Your task to perform on an android device: Clear the shopping cart on bestbuy. Search for logitech g pro on bestbuy, select the first entry, add it to the cart, then select checkout. Image 0: 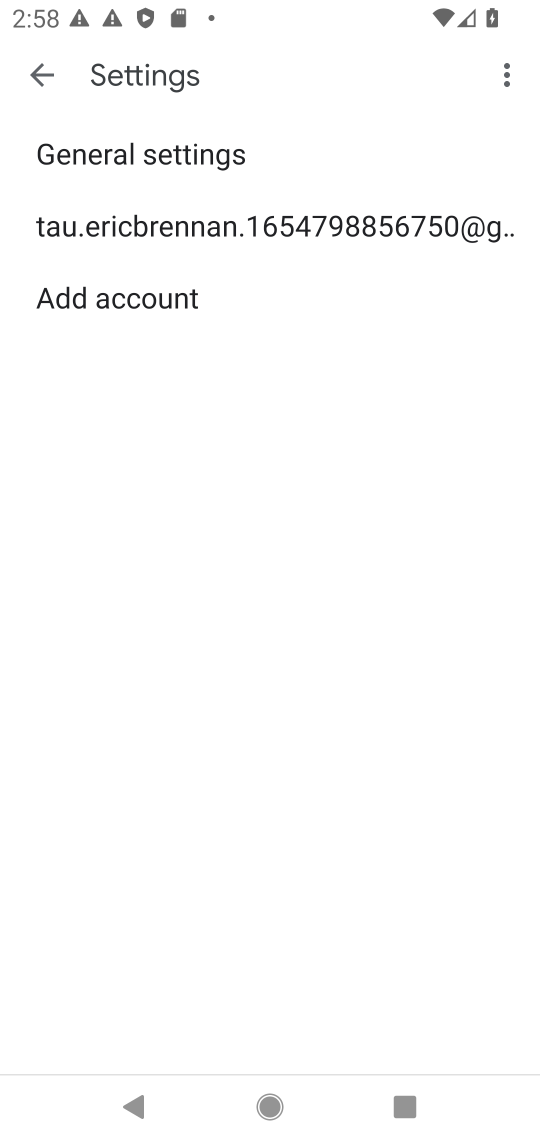
Step 0: press home button
Your task to perform on an android device: Clear the shopping cart on bestbuy. Search for logitech g pro on bestbuy, select the first entry, add it to the cart, then select checkout. Image 1: 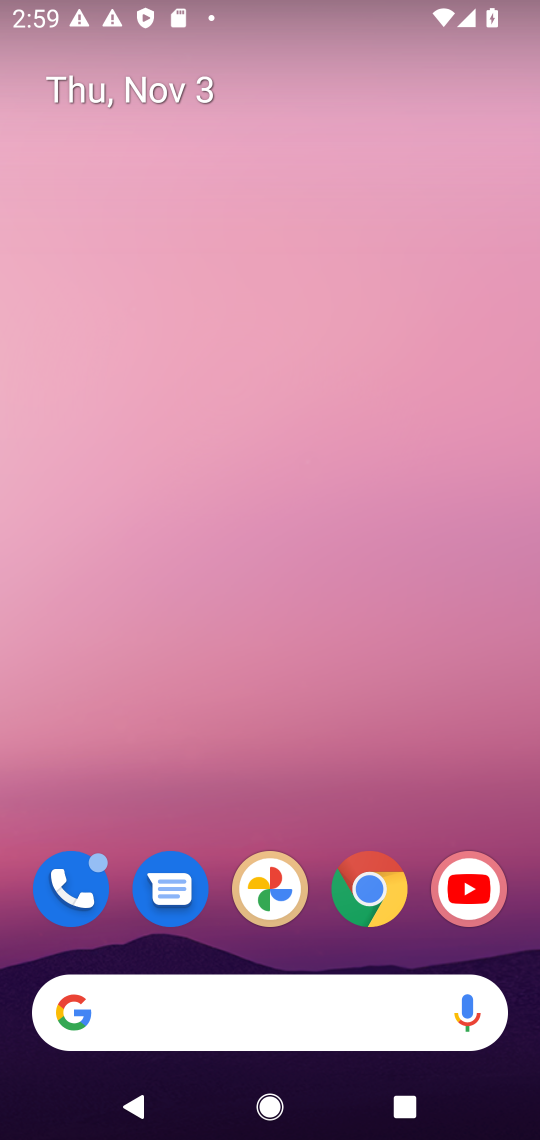
Step 1: click (363, 899)
Your task to perform on an android device: Clear the shopping cart on bestbuy. Search for logitech g pro on bestbuy, select the first entry, add it to the cart, then select checkout. Image 2: 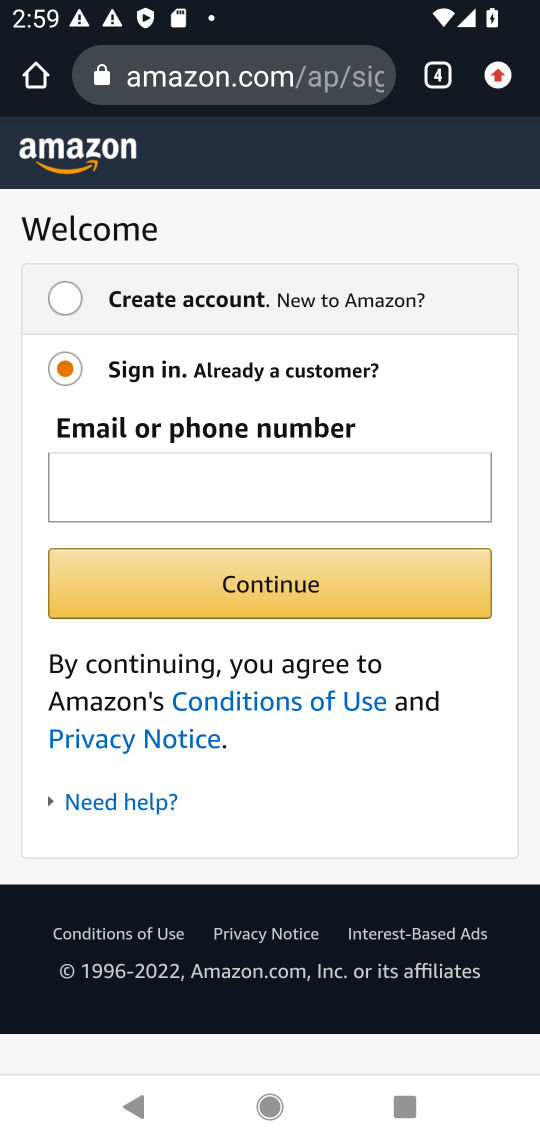
Step 2: click (430, 80)
Your task to perform on an android device: Clear the shopping cart on bestbuy. Search for logitech g pro on bestbuy, select the first entry, add it to the cart, then select checkout. Image 3: 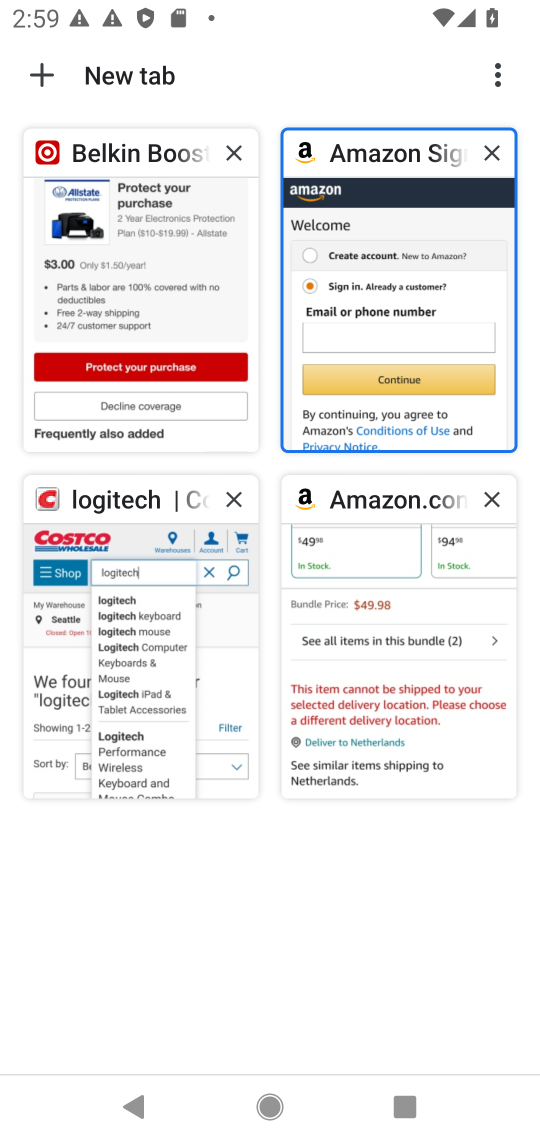
Step 3: click (32, 67)
Your task to perform on an android device: Clear the shopping cart on bestbuy. Search for logitech g pro on bestbuy, select the first entry, add it to the cart, then select checkout. Image 4: 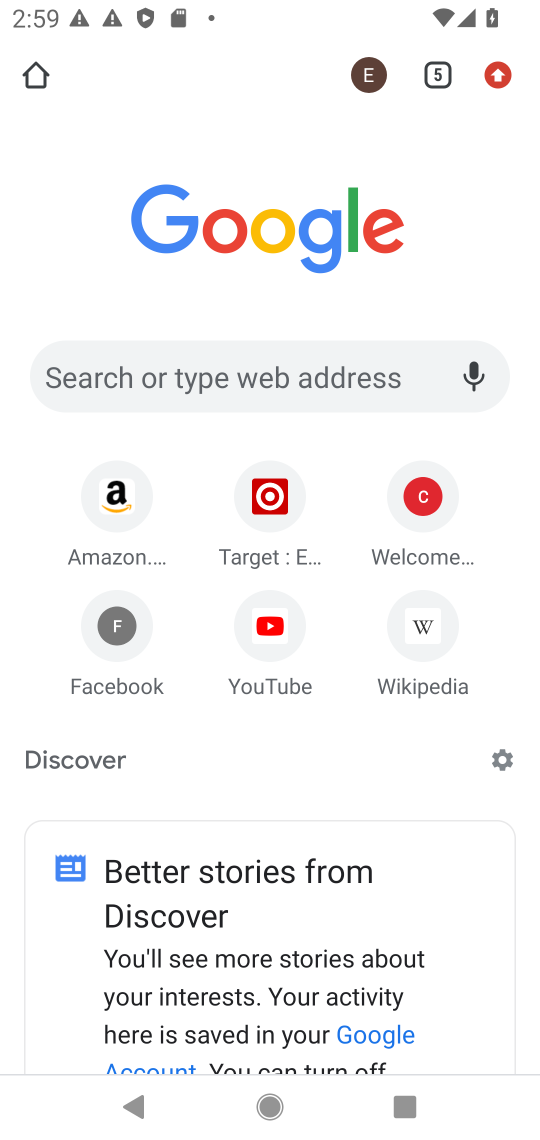
Step 4: click (196, 384)
Your task to perform on an android device: Clear the shopping cart on bestbuy. Search for logitech g pro on bestbuy, select the first entry, add it to the cart, then select checkout. Image 5: 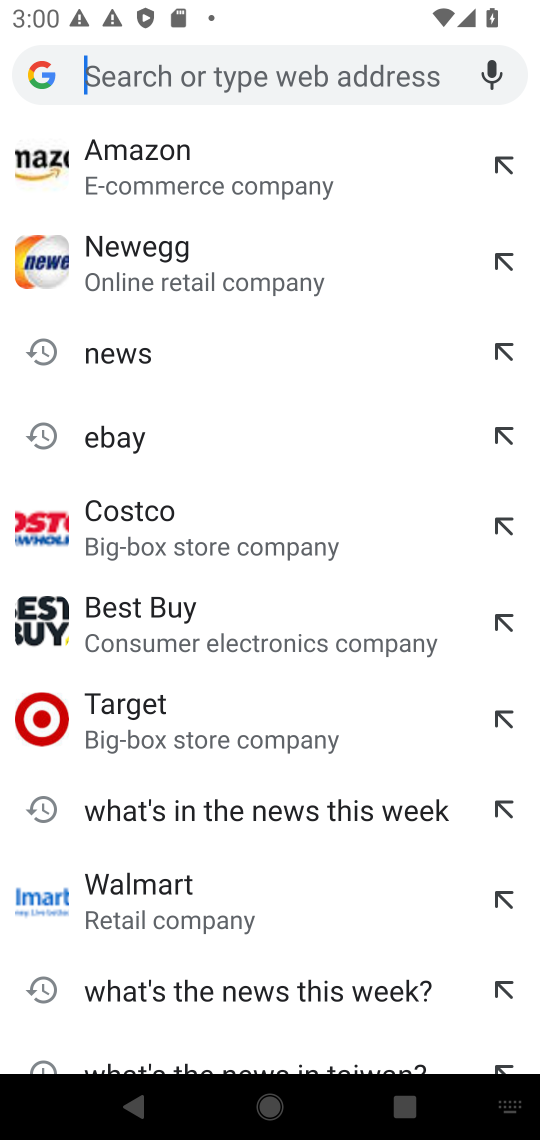
Step 5: type "bestbuy"
Your task to perform on an android device: Clear the shopping cart on bestbuy. Search for logitech g pro on bestbuy, select the first entry, add it to the cart, then select checkout. Image 6: 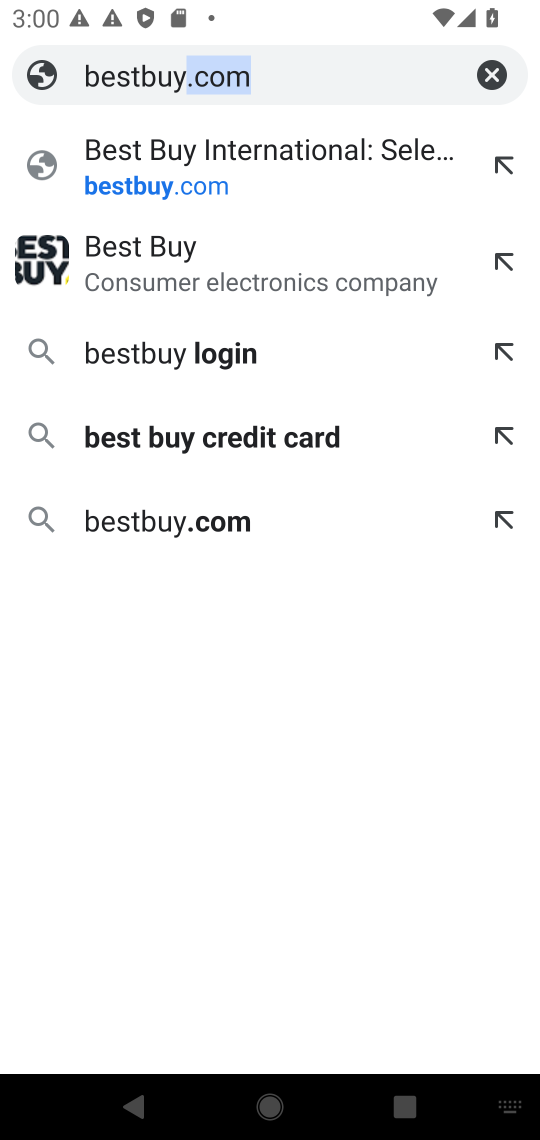
Step 6: click (270, 170)
Your task to perform on an android device: Clear the shopping cart on bestbuy. Search for logitech g pro on bestbuy, select the first entry, add it to the cart, then select checkout. Image 7: 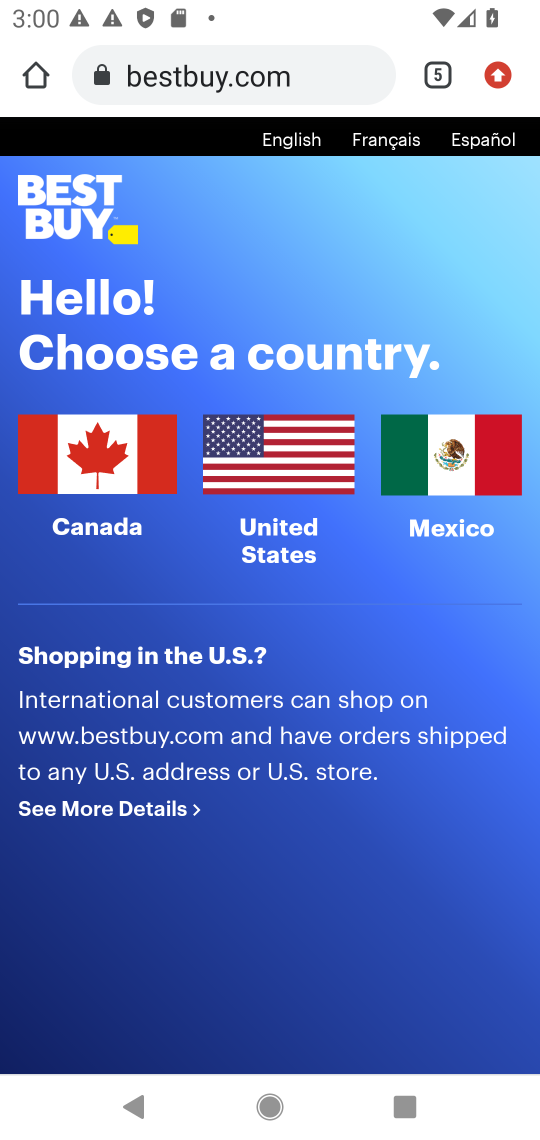
Step 7: drag from (339, 342) to (291, 1127)
Your task to perform on an android device: Clear the shopping cart on bestbuy. Search for logitech g pro on bestbuy, select the first entry, add it to the cart, then select checkout. Image 8: 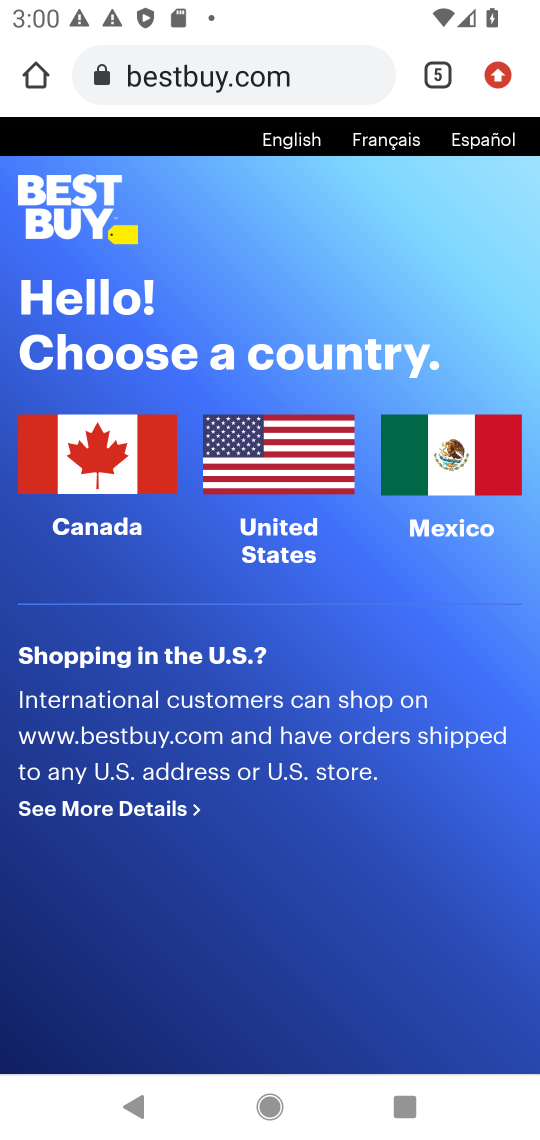
Step 8: click (282, 132)
Your task to perform on an android device: Clear the shopping cart on bestbuy. Search for logitech g pro on bestbuy, select the first entry, add it to the cart, then select checkout. Image 9: 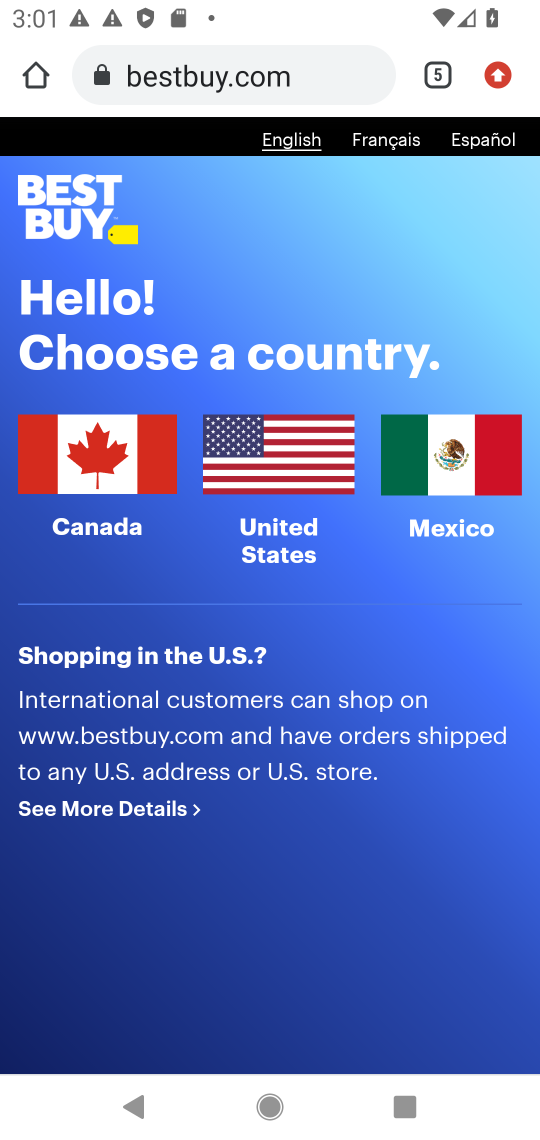
Step 9: drag from (264, 922) to (438, 21)
Your task to perform on an android device: Clear the shopping cart on bestbuy. Search for logitech g pro on bestbuy, select the first entry, add it to the cart, then select checkout. Image 10: 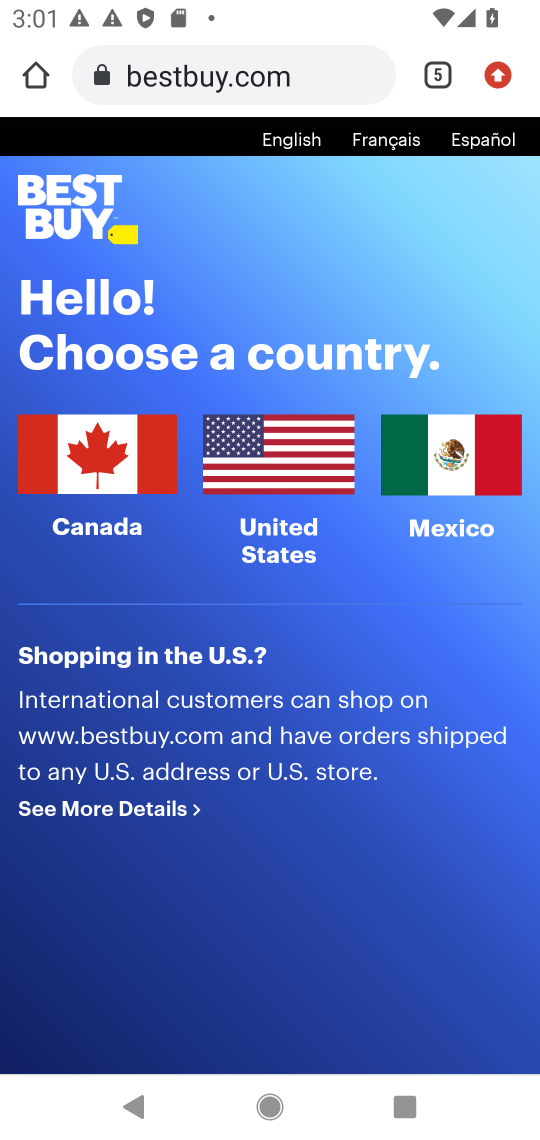
Step 10: click (290, 141)
Your task to perform on an android device: Clear the shopping cart on bestbuy. Search for logitech g pro on bestbuy, select the first entry, add it to the cart, then select checkout. Image 11: 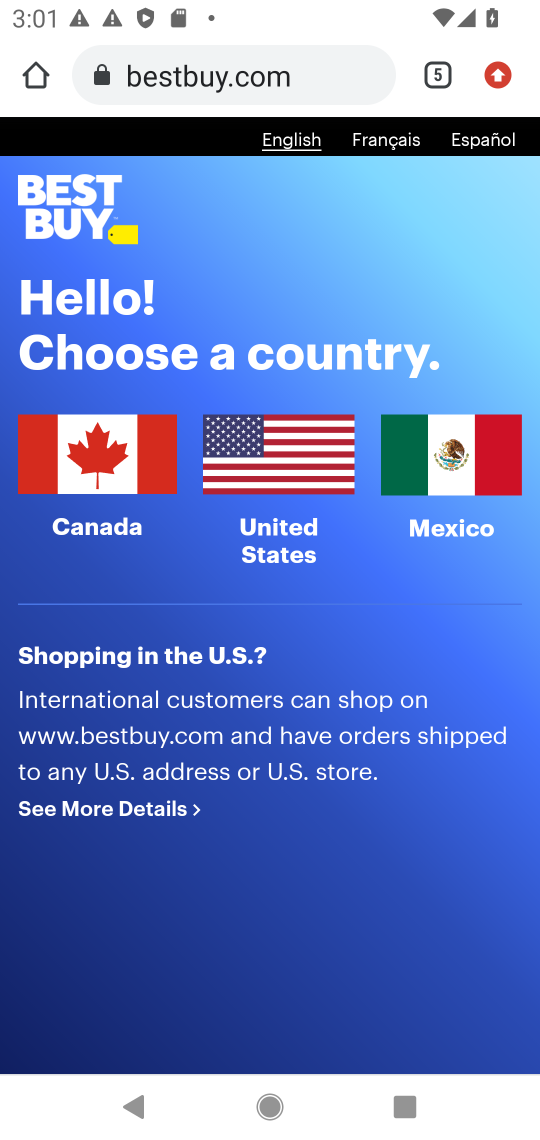
Step 11: task complete